Your task to perform on an android device: Search for Italian restaurants on Maps Image 0: 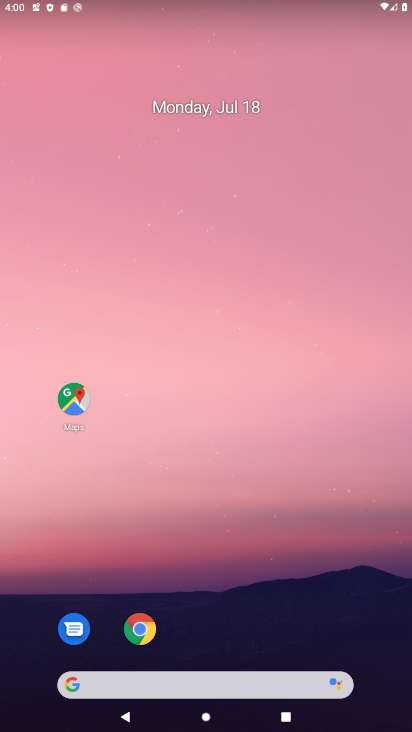
Step 0: click (68, 397)
Your task to perform on an android device: Search for Italian restaurants on Maps Image 1: 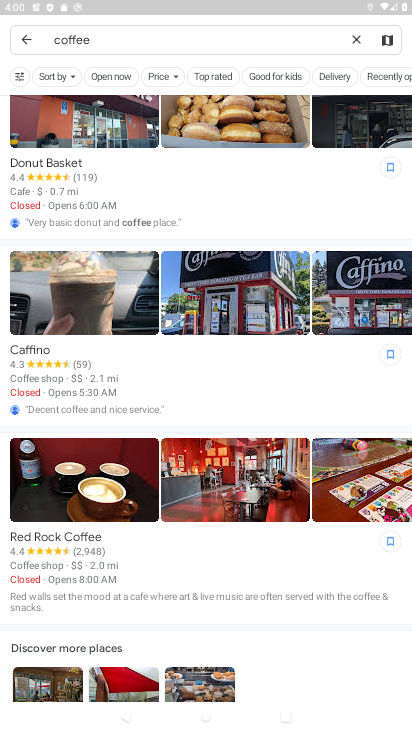
Step 1: click (356, 33)
Your task to perform on an android device: Search for Italian restaurants on Maps Image 2: 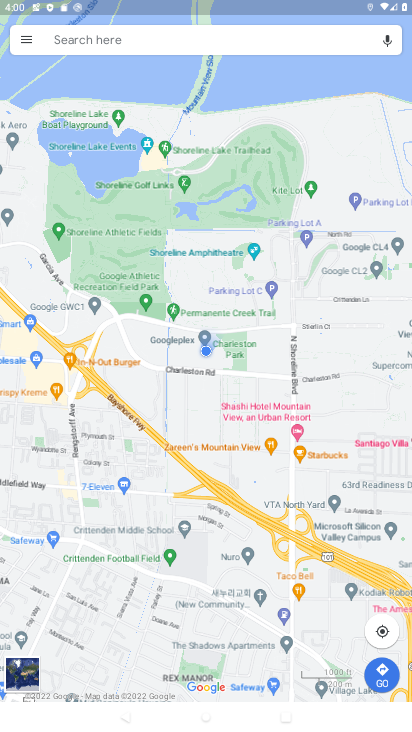
Step 2: click (86, 30)
Your task to perform on an android device: Search for Italian restaurants on Maps Image 3: 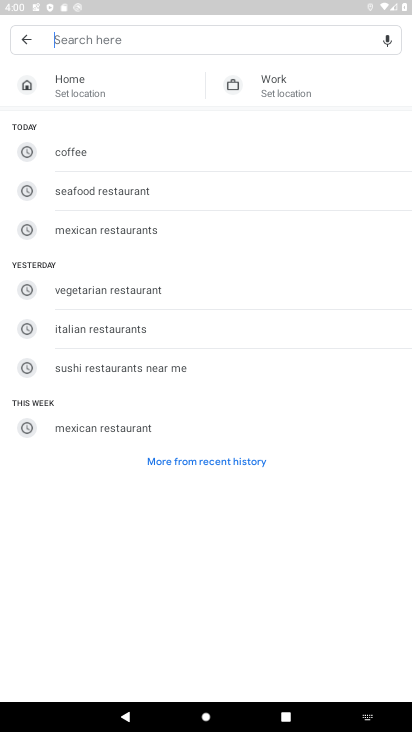
Step 3: click (98, 336)
Your task to perform on an android device: Search for Italian restaurants on Maps Image 4: 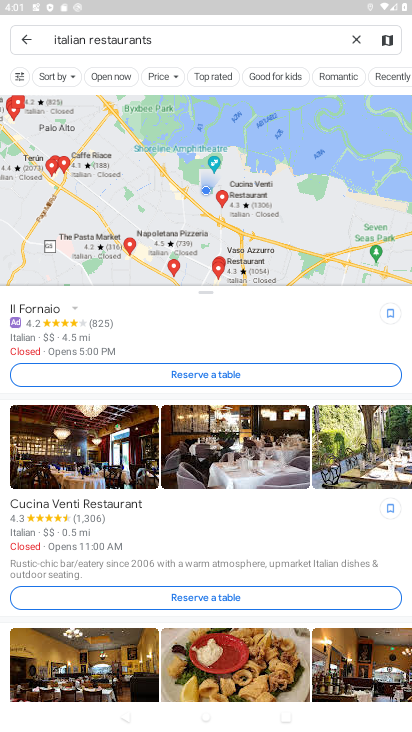
Step 4: task complete